Your task to perform on an android device: toggle notification dots Image 0: 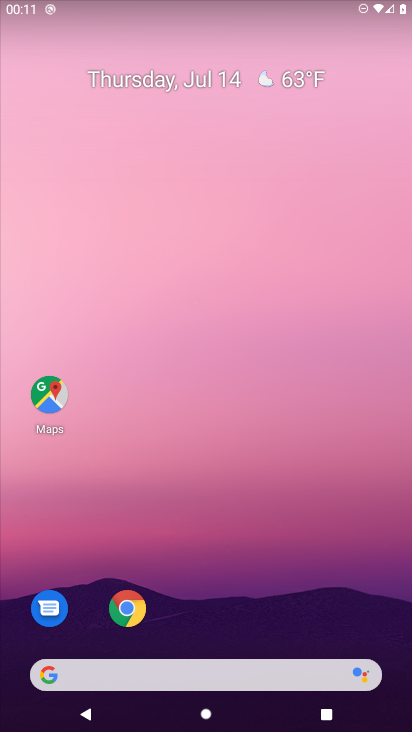
Step 0: press home button
Your task to perform on an android device: toggle notification dots Image 1: 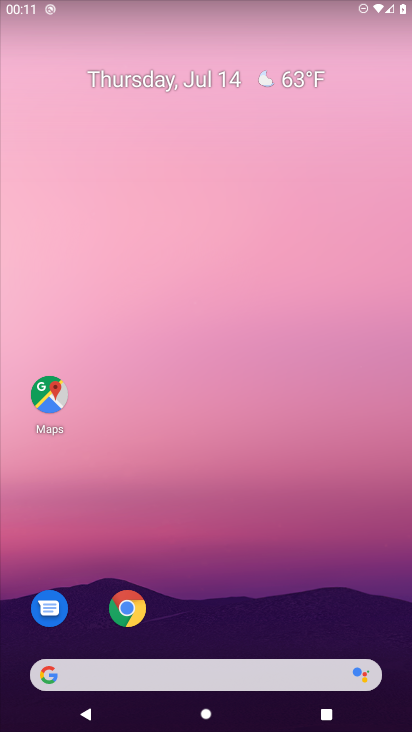
Step 1: drag from (222, 633) to (260, 95)
Your task to perform on an android device: toggle notification dots Image 2: 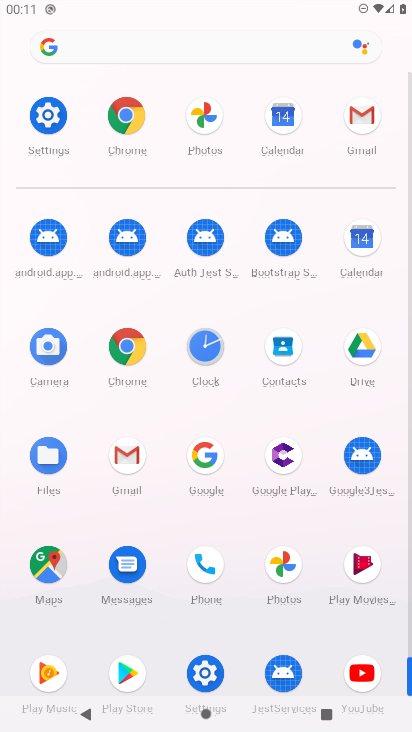
Step 2: click (51, 111)
Your task to perform on an android device: toggle notification dots Image 3: 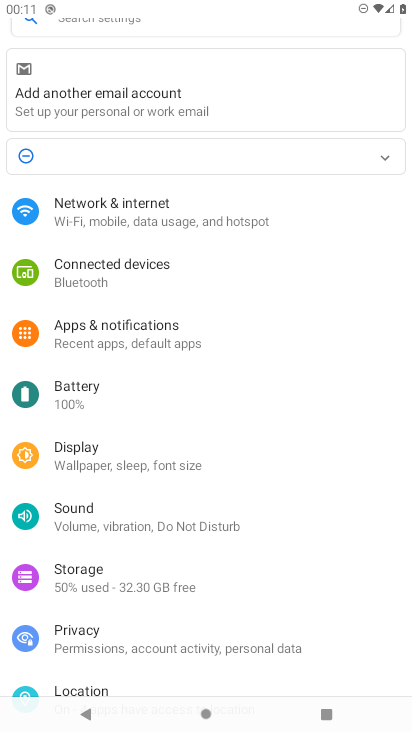
Step 3: click (134, 336)
Your task to perform on an android device: toggle notification dots Image 4: 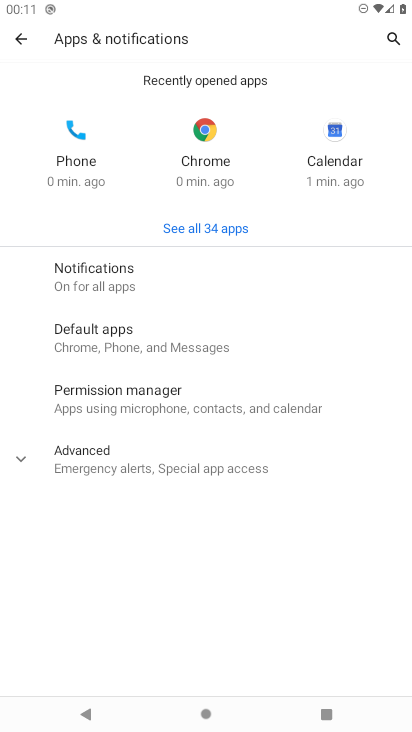
Step 4: click (93, 282)
Your task to perform on an android device: toggle notification dots Image 5: 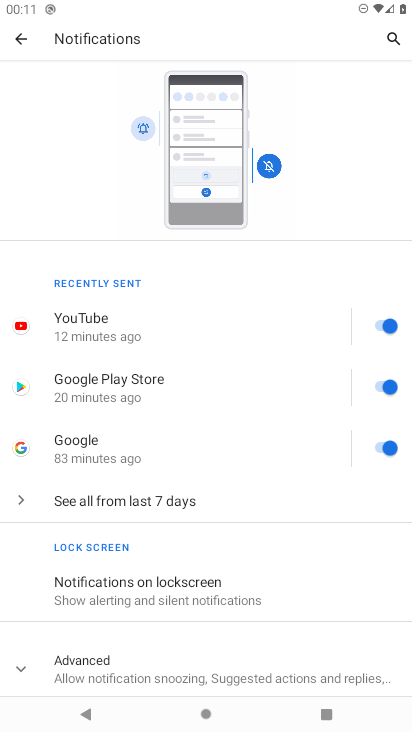
Step 5: click (86, 662)
Your task to perform on an android device: toggle notification dots Image 6: 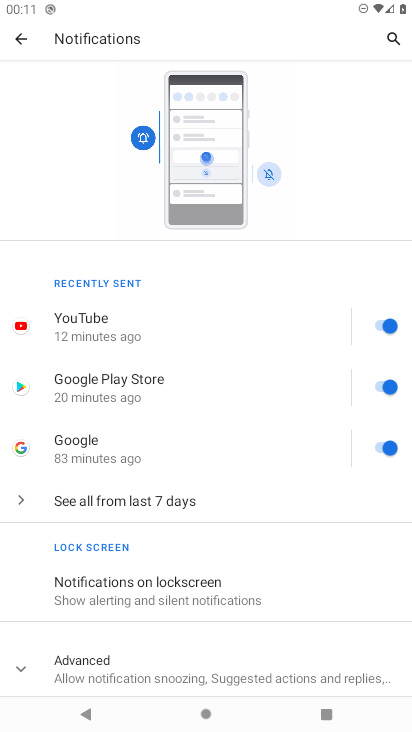
Step 6: click (99, 672)
Your task to perform on an android device: toggle notification dots Image 7: 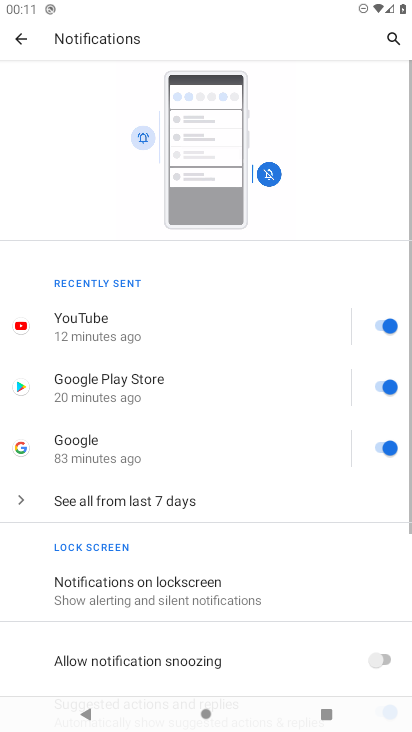
Step 7: drag from (351, 602) to (315, 215)
Your task to perform on an android device: toggle notification dots Image 8: 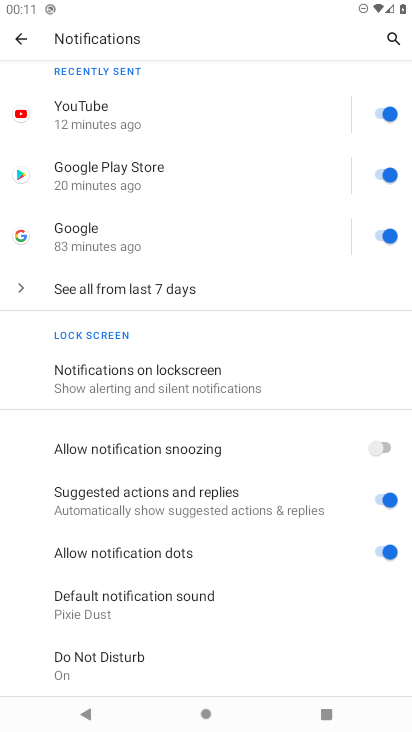
Step 8: click (394, 555)
Your task to perform on an android device: toggle notification dots Image 9: 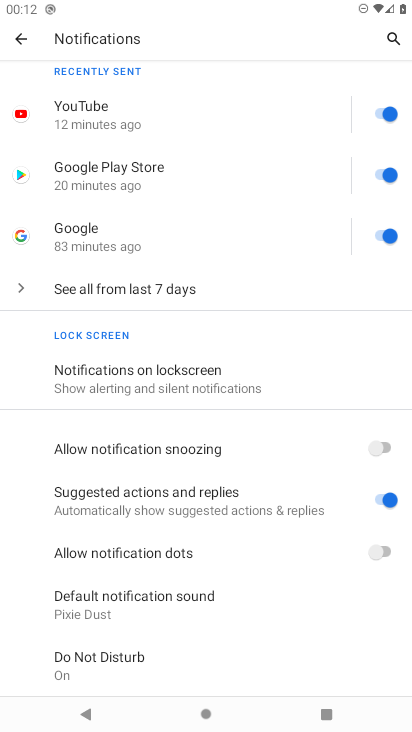
Step 9: task complete